Your task to perform on an android device: turn off location history Image 0: 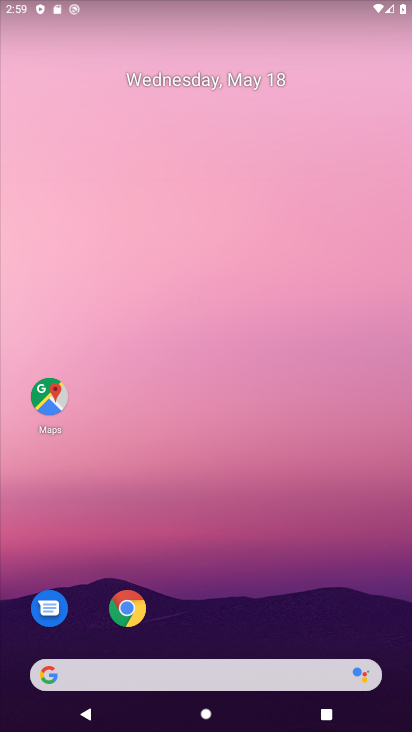
Step 0: drag from (162, 656) to (263, 238)
Your task to perform on an android device: turn off location history Image 1: 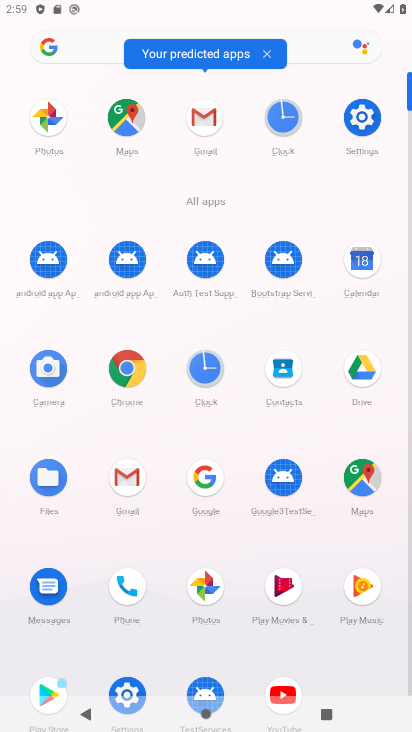
Step 1: click (348, 130)
Your task to perform on an android device: turn off location history Image 2: 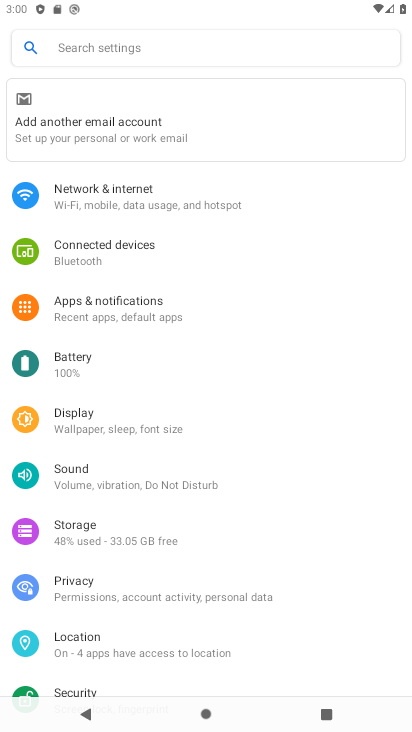
Step 2: click (85, 658)
Your task to perform on an android device: turn off location history Image 3: 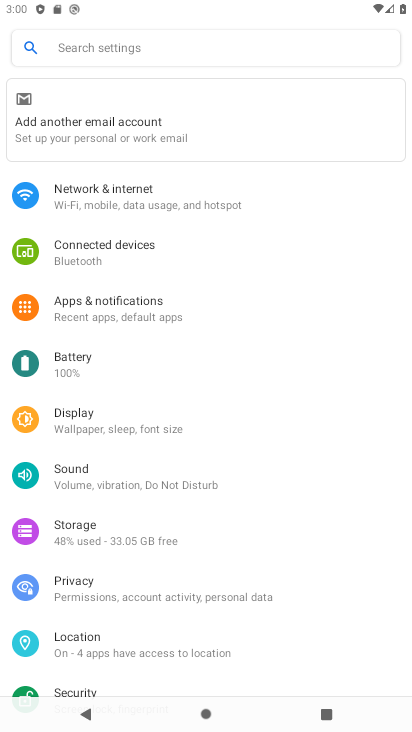
Step 3: click (77, 643)
Your task to perform on an android device: turn off location history Image 4: 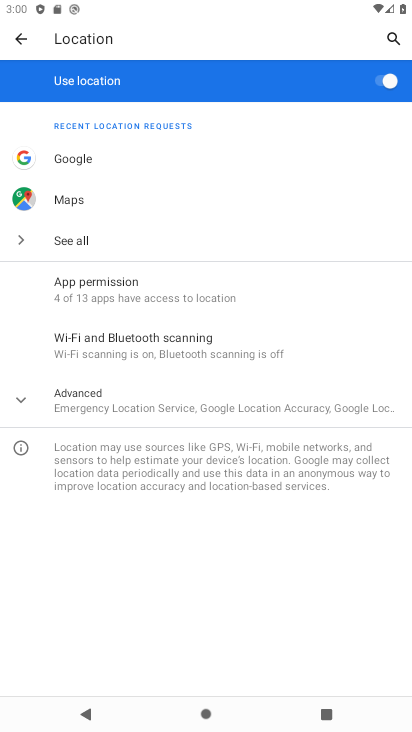
Step 4: click (116, 405)
Your task to perform on an android device: turn off location history Image 5: 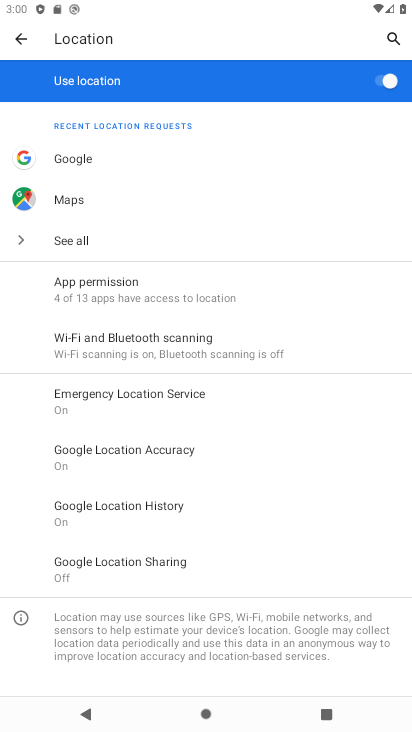
Step 5: click (109, 514)
Your task to perform on an android device: turn off location history Image 6: 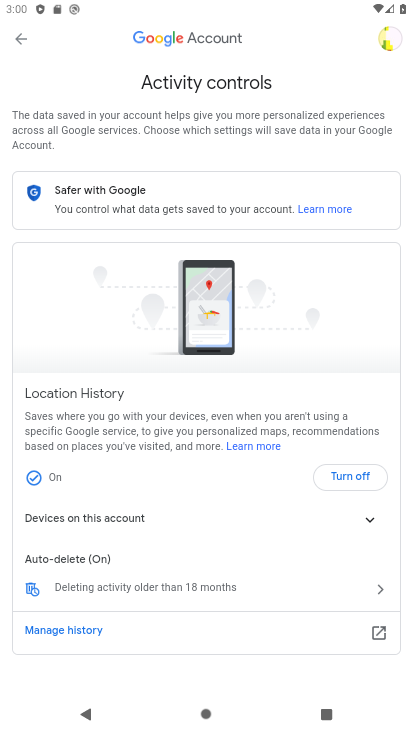
Step 6: click (337, 480)
Your task to perform on an android device: turn off location history Image 7: 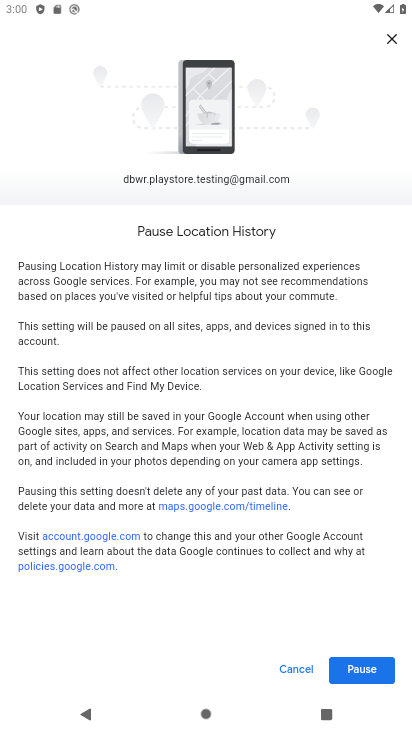
Step 7: click (366, 671)
Your task to perform on an android device: turn off location history Image 8: 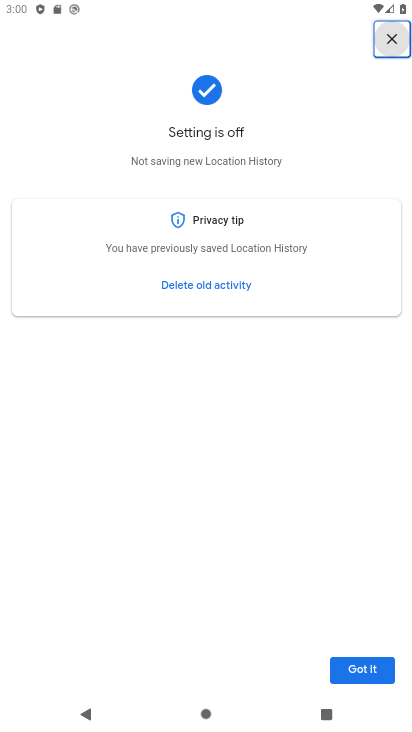
Step 8: click (339, 666)
Your task to perform on an android device: turn off location history Image 9: 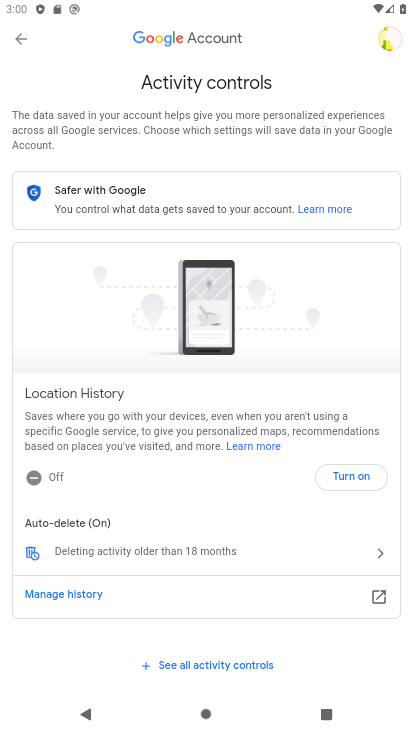
Step 9: task complete